Your task to perform on an android device: make emails show in primary in the gmail app Image 0: 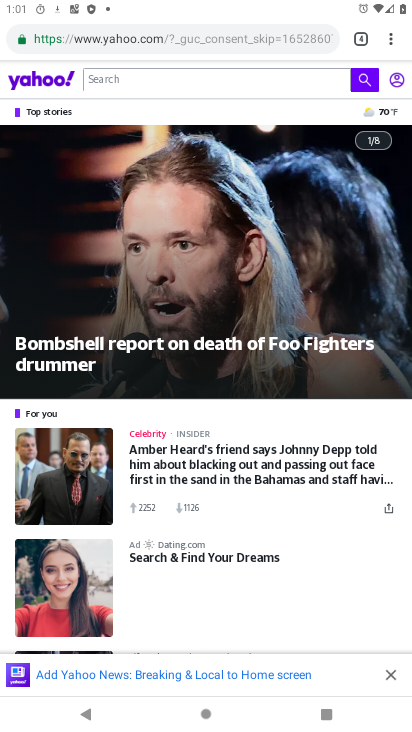
Step 0: press home button
Your task to perform on an android device: make emails show in primary in the gmail app Image 1: 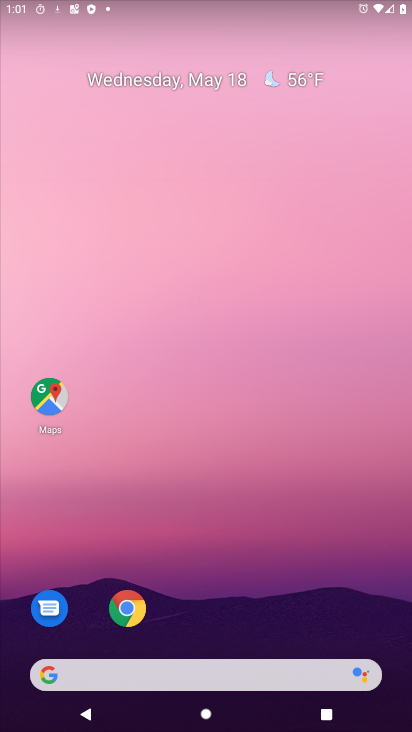
Step 1: drag from (245, 670) to (227, 128)
Your task to perform on an android device: make emails show in primary in the gmail app Image 2: 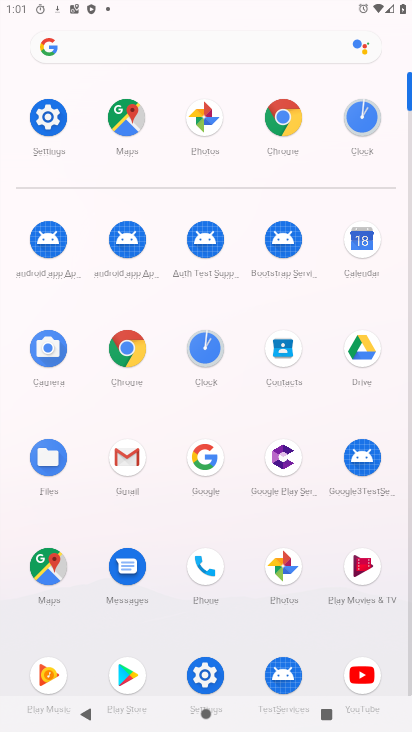
Step 2: click (132, 461)
Your task to perform on an android device: make emails show in primary in the gmail app Image 3: 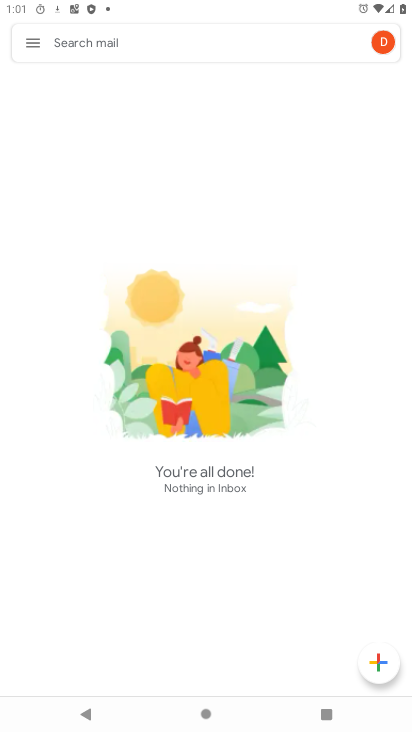
Step 3: click (37, 41)
Your task to perform on an android device: make emails show in primary in the gmail app Image 4: 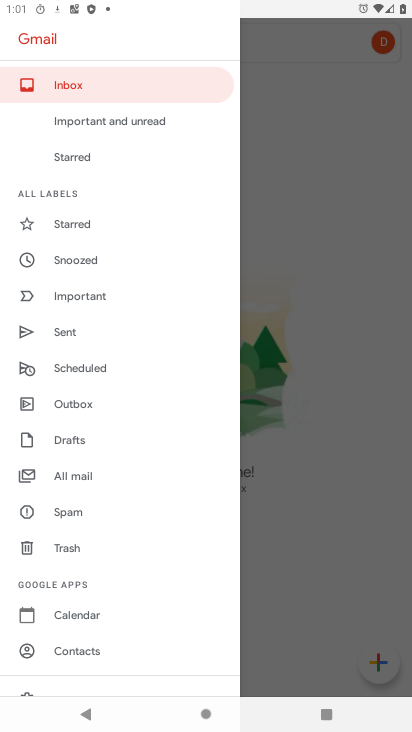
Step 4: drag from (129, 658) to (104, 474)
Your task to perform on an android device: make emails show in primary in the gmail app Image 5: 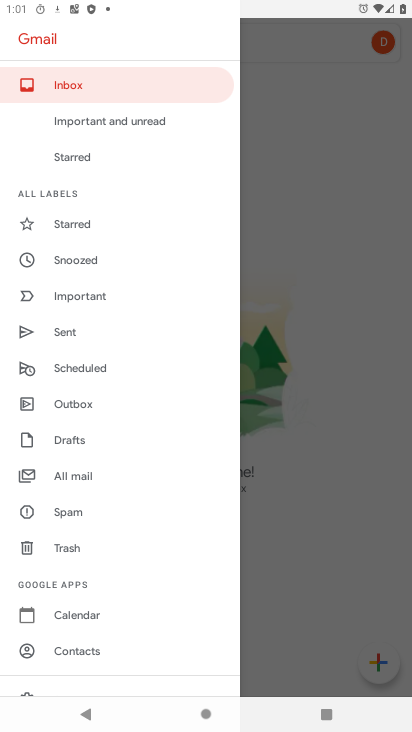
Step 5: drag from (33, 626) to (79, 500)
Your task to perform on an android device: make emails show in primary in the gmail app Image 6: 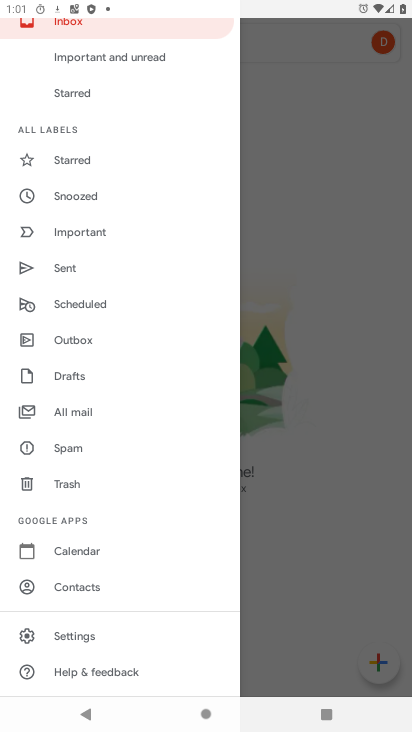
Step 6: click (69, 627)
Your task to perform on an android device: make emails show in primary in the gmail app Image 7: 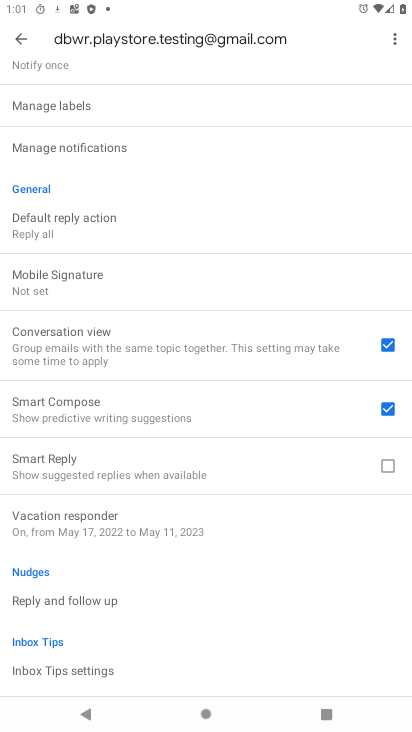
Step 7: drag from (140, 667) to (189, 546)
Your task to perform on an android device: make emails show in primary in the gmail app Image 8: 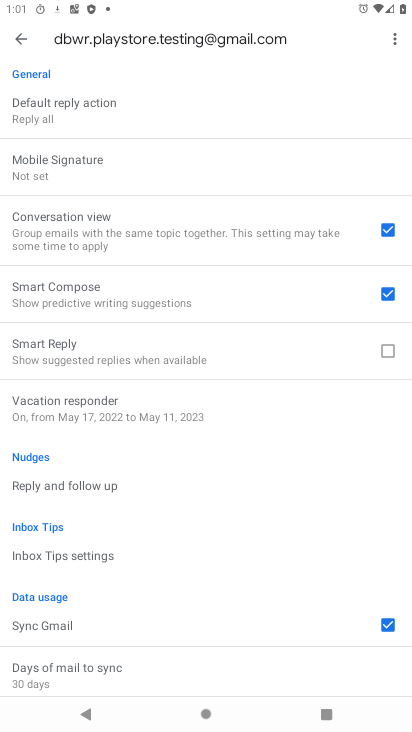
Step 8: drag from (128, 187) to (127, 348)
Your task to perform on an android device: make emails show in primary in the gmail app Image 9: 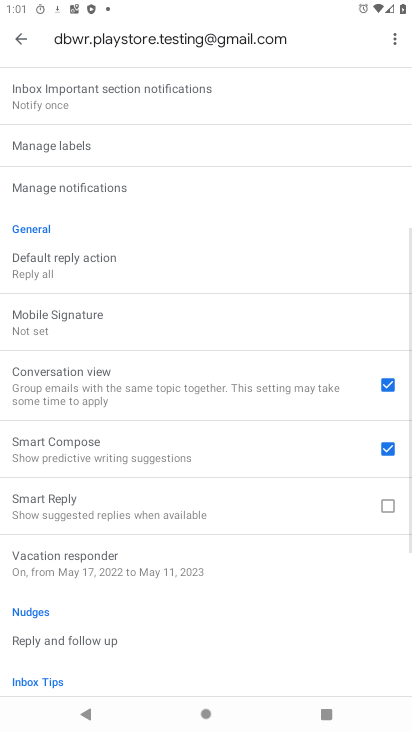
Step 9: drag from (115, 141) to (114, 276)
Your task to perform on an android device: make emails show in primary in the gmail app Image 10: 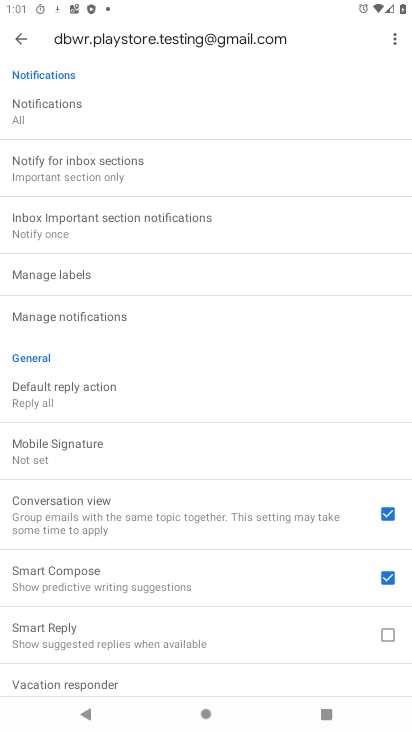
Step 10: drag from (94, 133) to (78, 304)
Your task to perform on an android device: make emails show in primary in the gmail app Image 11: 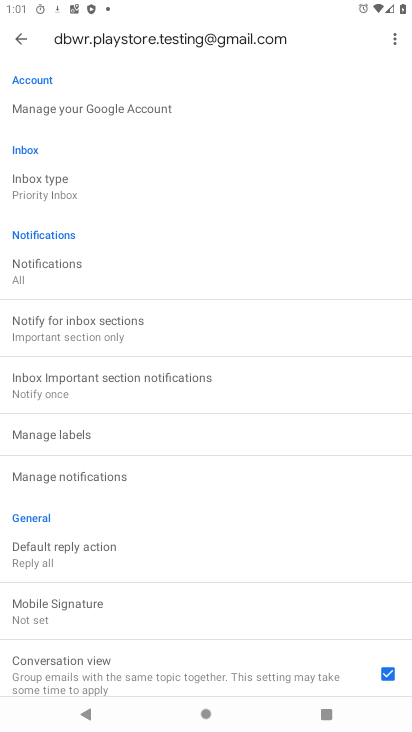
Step 11: click (79, 196)
Your task to perform on an android device: make emails show in primary in the gmail app Image 12: 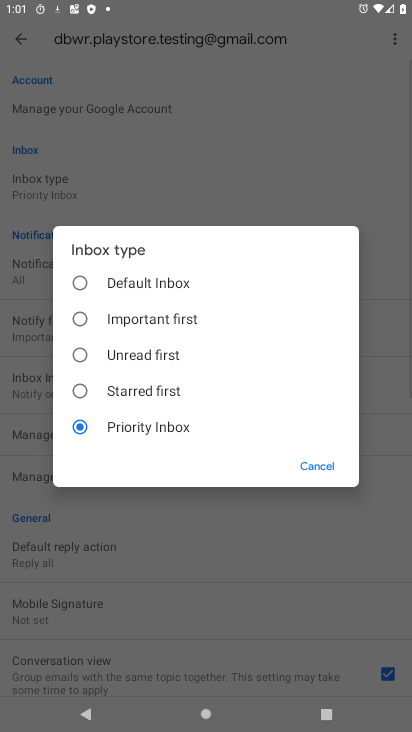
Step 12: click (106, 280)
Your task to perform on an android device: make emails show in primary in the gmail app Image 13: 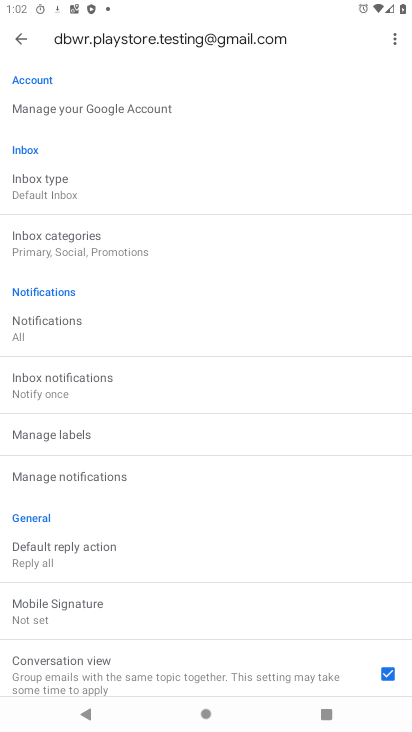
Step 13: click (99, 248)
Your task to perform on an android device: make emails show in primary in the gmail app Image 14: 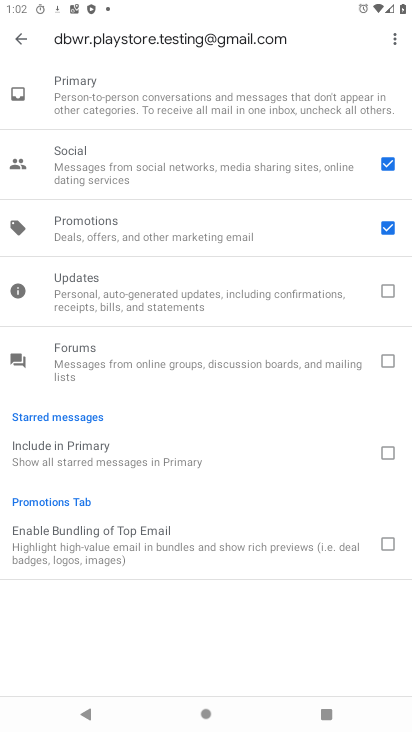
Step 14: click (190, 105)
Your task to perform on an android device: make emails show in primary in the gmail app Image 15: 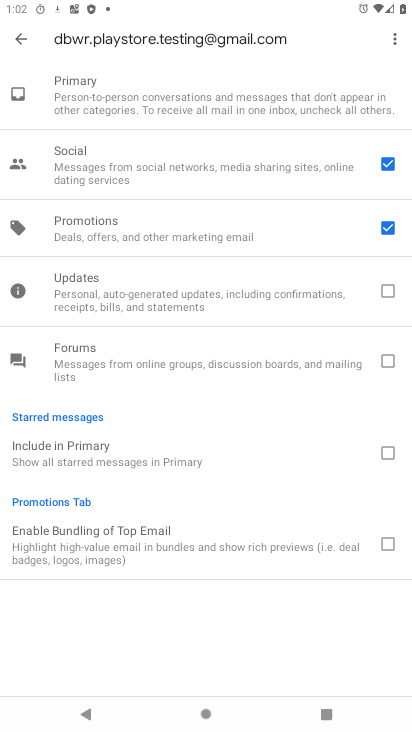
Step 15: task complete